Your task to perform on an android device: toggle wifi Image 0: 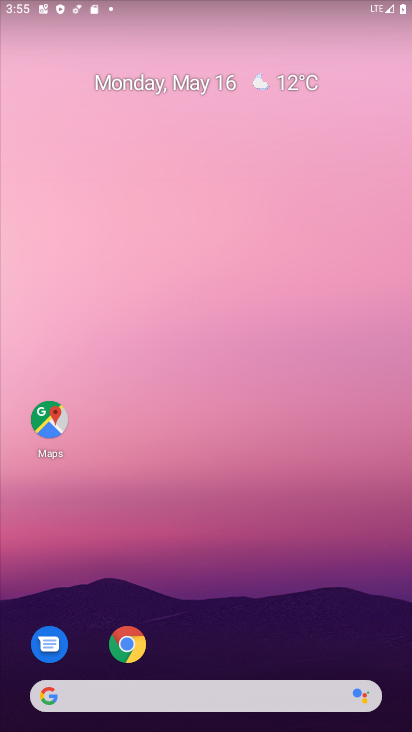
Step 0: drag from (290, 9) to (209, 600)
Your task to perform on an android device: toggle wifi Image 1: 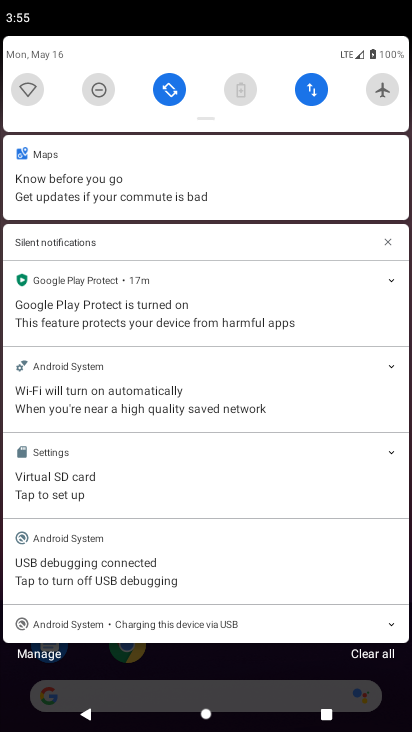
Step 1: click (17, 85)
Your task to perform on an android device: toggle wifi Image 2: 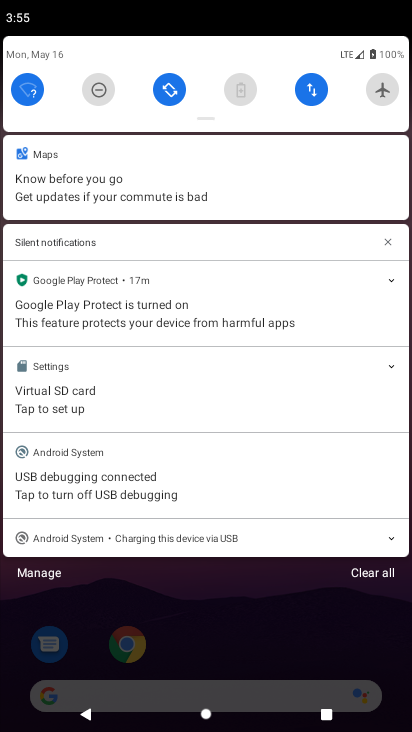
Step 2: task complete